Your task to perform on an android device: toggle pop-ups in chrome Image 0: 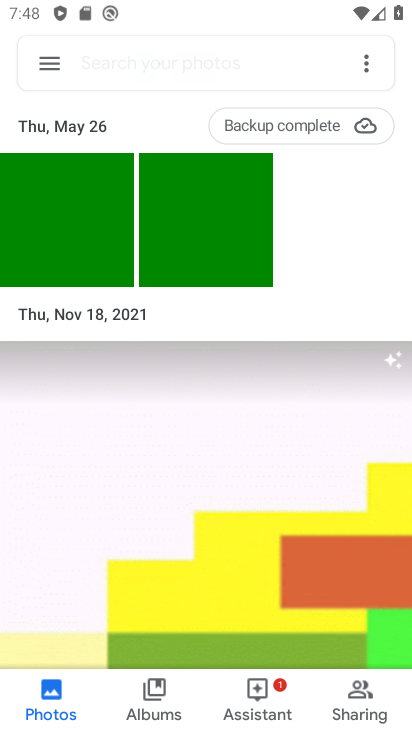
Step 0: press home button
Your task to perform on an android device: toggle pop-ups in chrome Image 1: 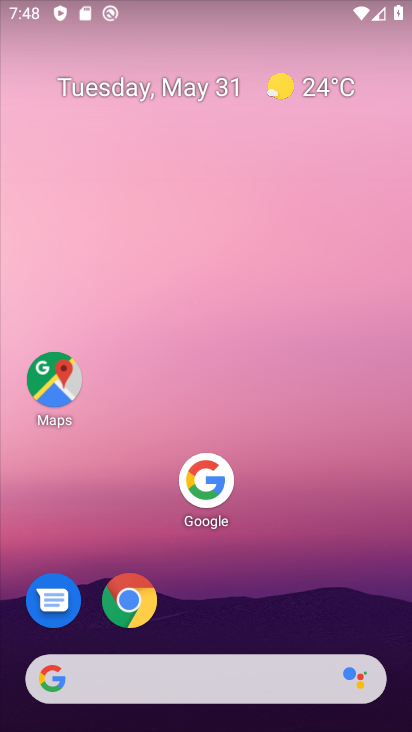
Step 1: click (134, 596)
Your task to perform on an android device: toggle pop-ups in chrome Image 2: 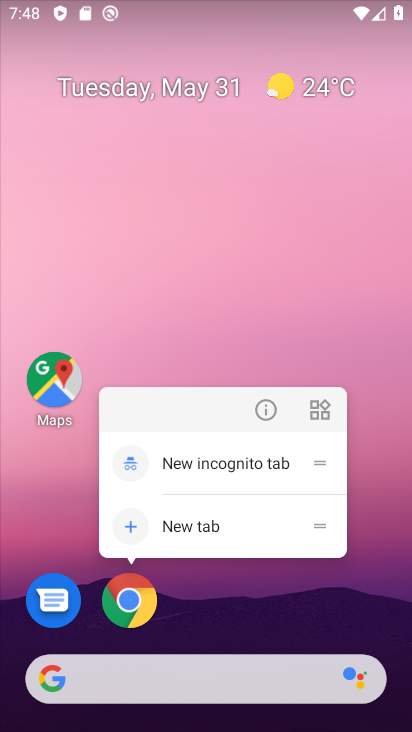
Step 2: click (121, 609)
Your task to perform on an android device: toggle pop-ups in chrome Image 3: 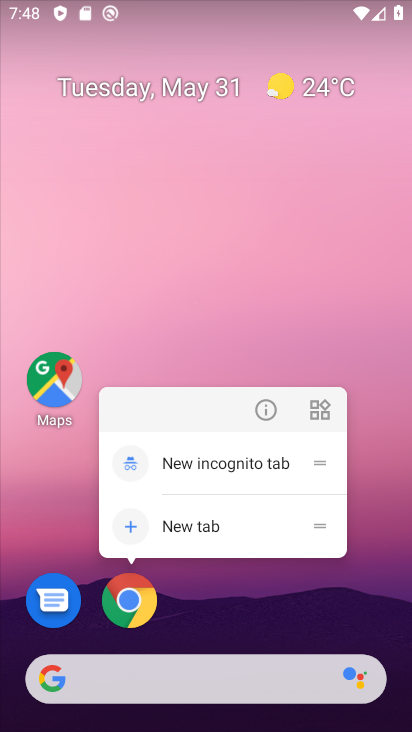
Step 3: click (127, 612)
Your task to perform on an android device: toggle pop-ups in chrome Image 4: 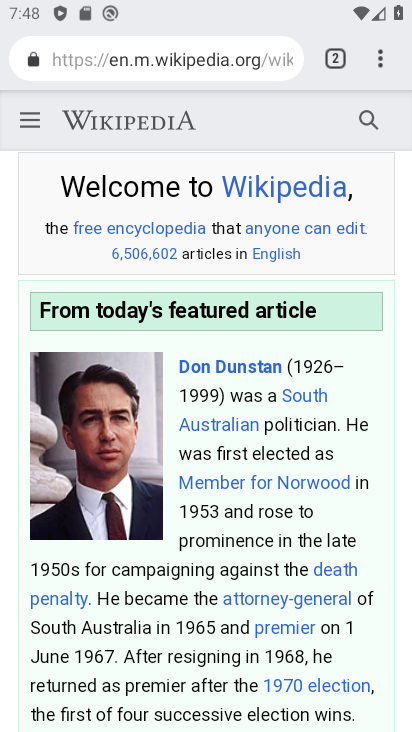
Step 4: drag from (380, 60) to (280, 622)
Your task to perform on an android device: toggle pop-ups in chrome Image 5: 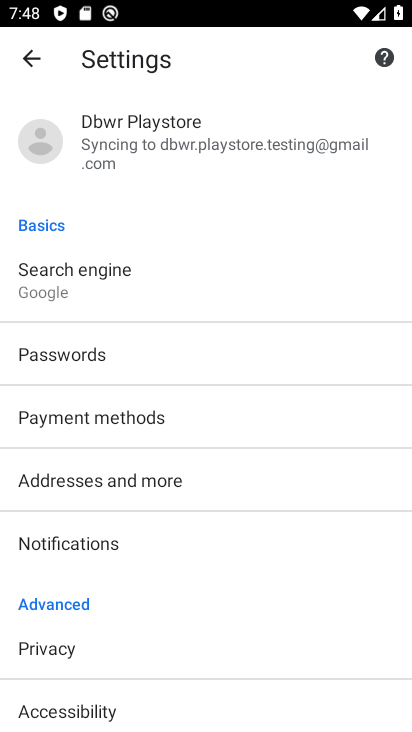
Step 5: drag from (241, 594) to (333, 269)
Your task to perform on an android device: toggle pop-ups in chrome Image 6: 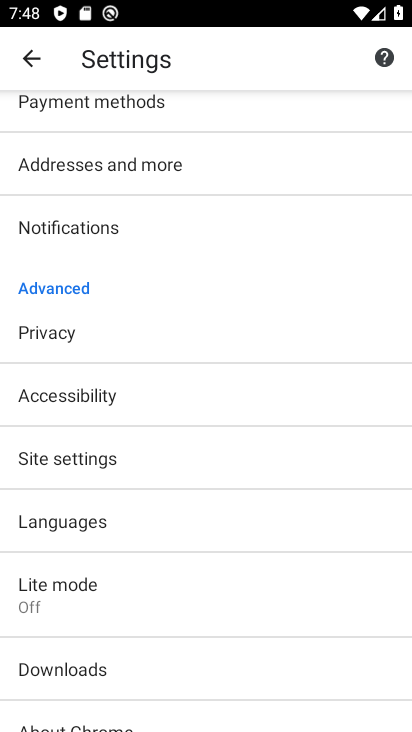
Step 6: click (86, 455)
Your task to perform on an android device: toggle pop-ups in chrome Image 7: 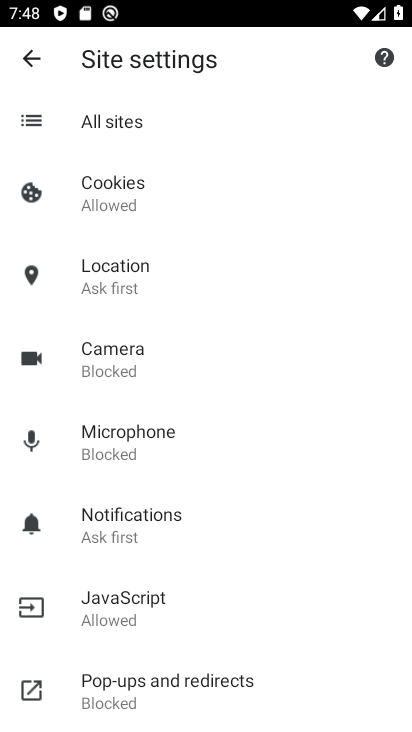
Step 7: drag from (284, 610) to (366, 334)
Your task to perform on an android device: toggle pop-ups in chrome Image 8: 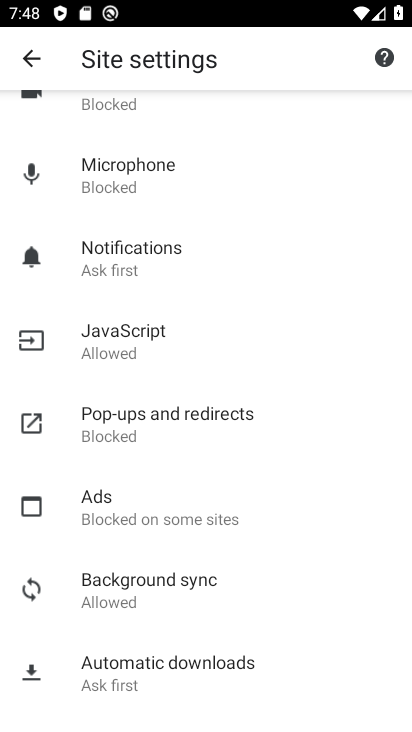
Step 8: click (196, 421)
Your task to perform on an android device: toggle pop-ups in chrome Image 9: 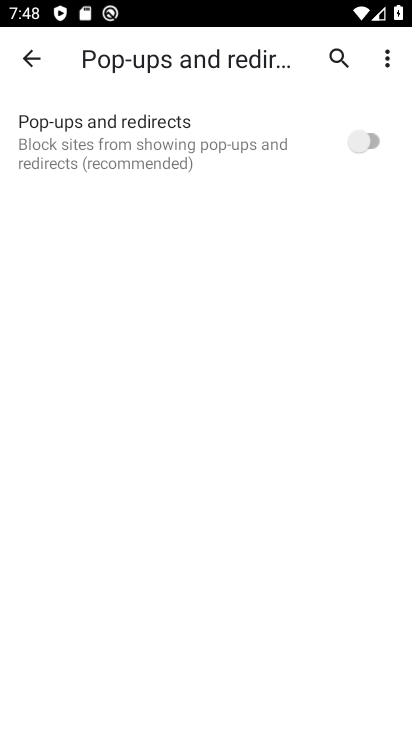
Step 9: click (373, 141)
Your task to perform on an android device: toggle pop-ups in chrome Image 10: 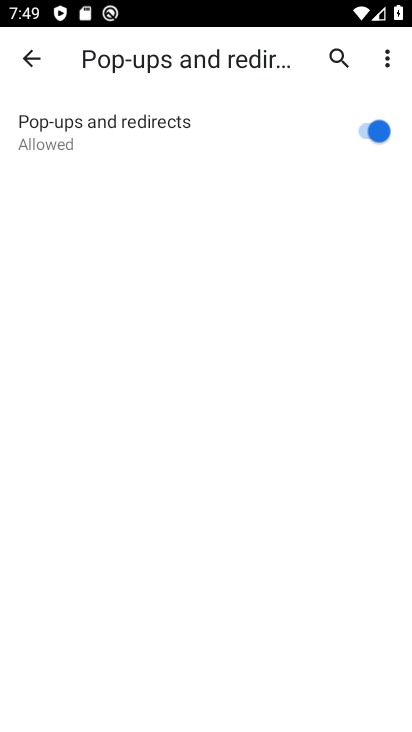
Step 10: task complete